Your task to perform on an android device: Open display settings Image 0: 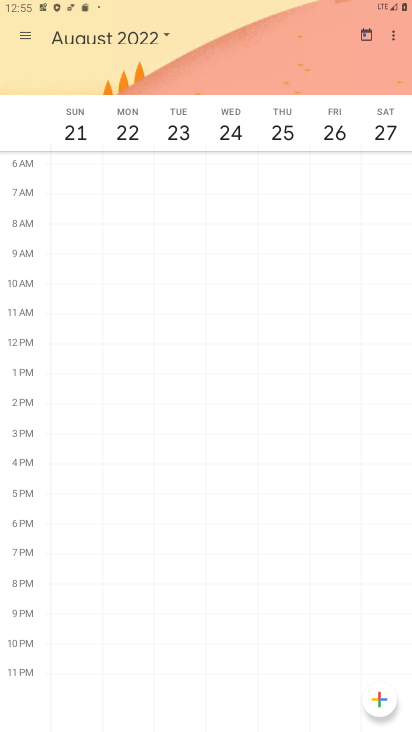
Step 0: press home button
Your task to perform on an android device: Open display settings Image 1: 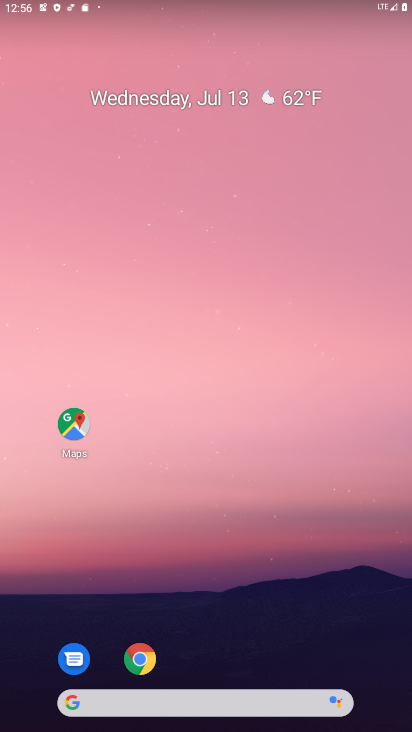
Step 1: drag from (239, 697) to (202, 70)
Your task to perform on an android device: Open display settings Image 2: 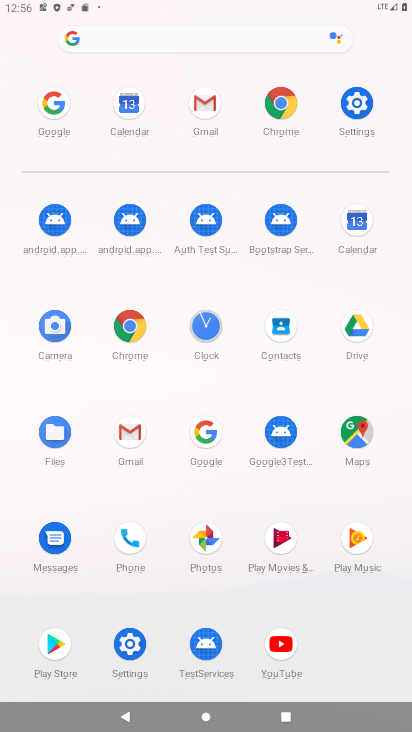
Step 2: click (354, 105)
Your task to perform on an android device: Open display settings Image 3: 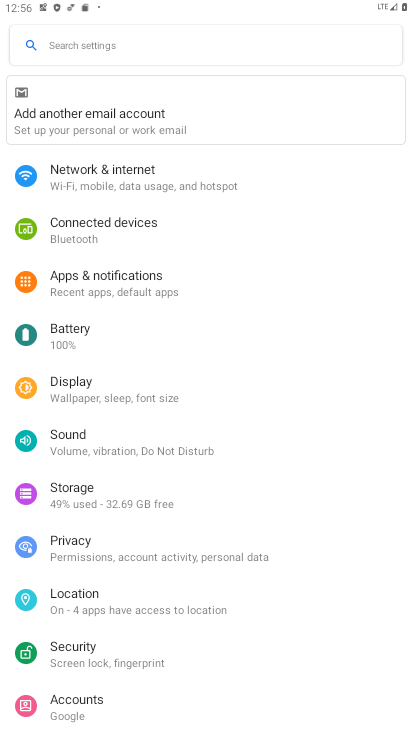
Step 3: click (78, 383)
Your task to perform on an android device: Open display settings Image 4: 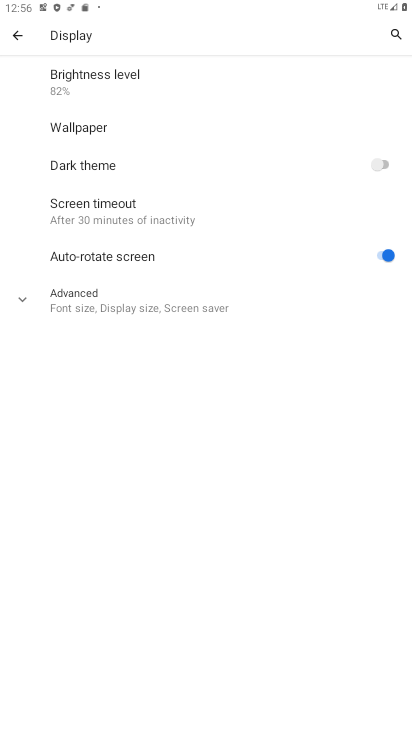
Step 4: task complete